Your task to perform on an android device: all mails in gmail Image 0: 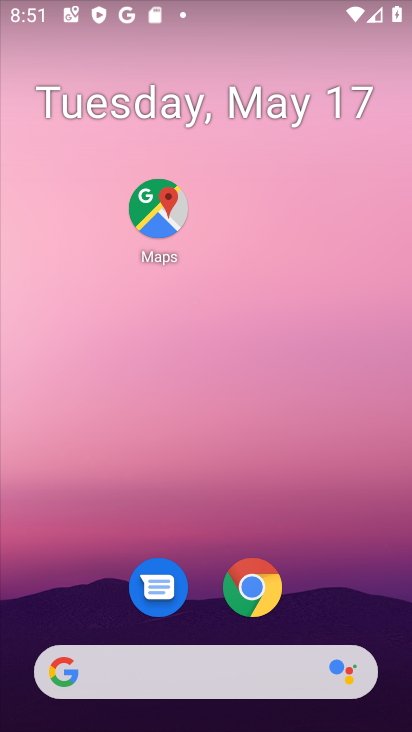
Step 0: drag from (49, 604) to (237, 308)
Your task to perform on an android device: all mails in gmail Image 1: 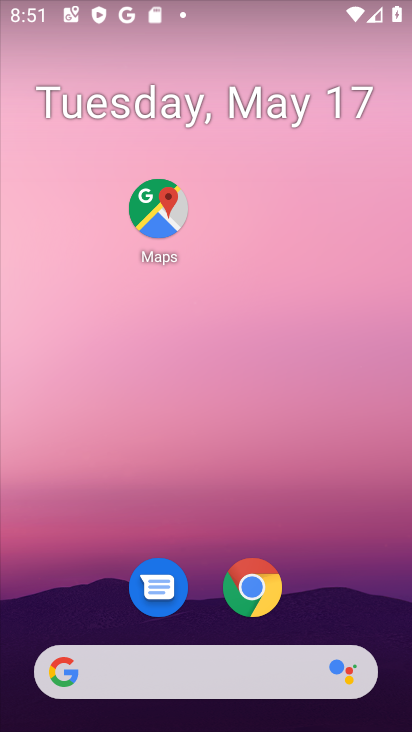
Step 1: drag from (31, 563) to (235, 164)
Your task to perform on an android device: all mails in gmail Image 2: 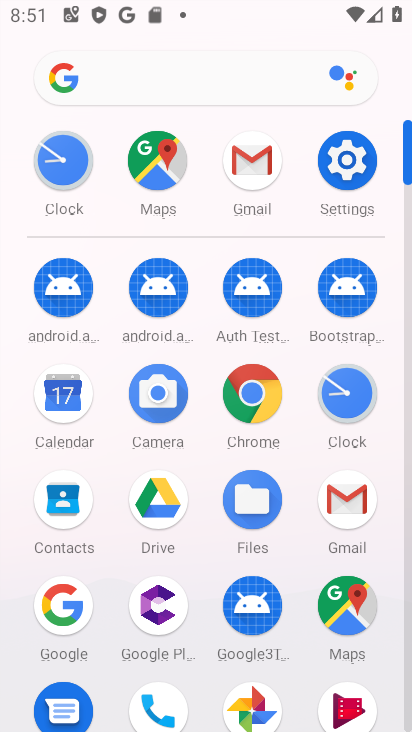
Step 2: click (242, 168)
Your task to perform on an android device: all mails in gmail Image 3: 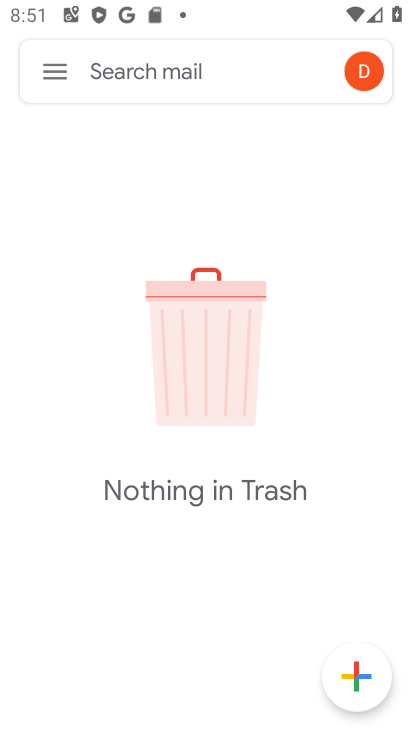
Step 3: click (48, 78)
Your task to perform on an android device: all mails in gmail Image 4: 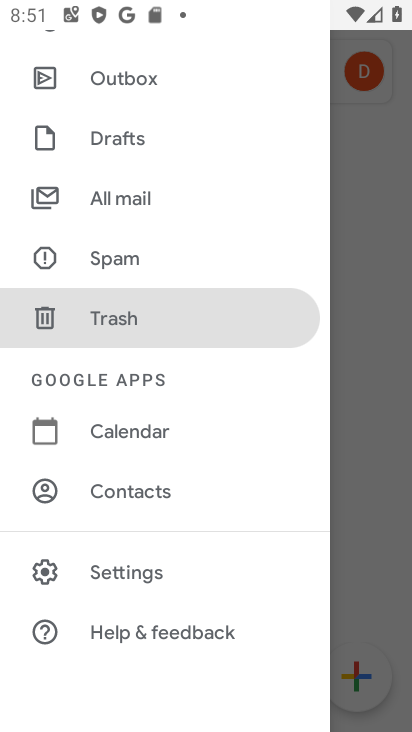
Step 4: click (137, 189)
Your task to perform on an android device: all mails in gmail Image 5: 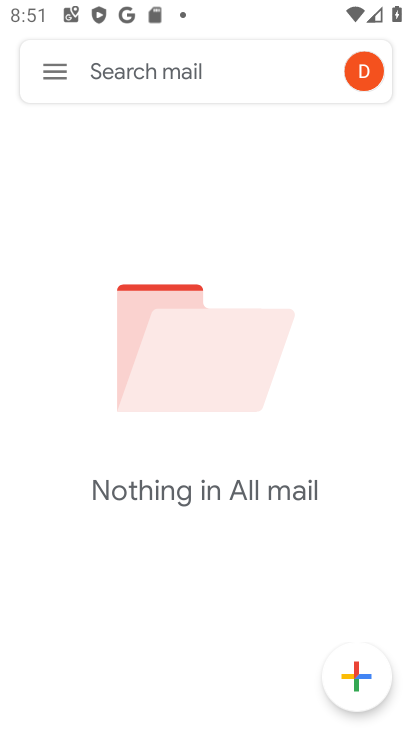
Step 5: task complete